Your task to perform on an android device: Go to notification settings Image 0: 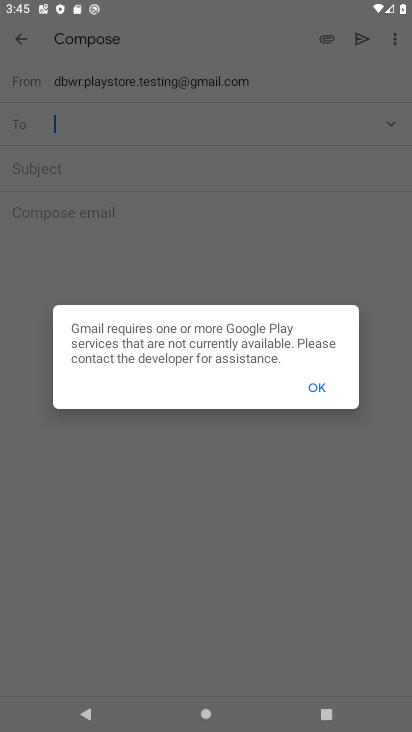
Step 0: press home button
Your task to perform on an android device: Go to notification settings Image 1: 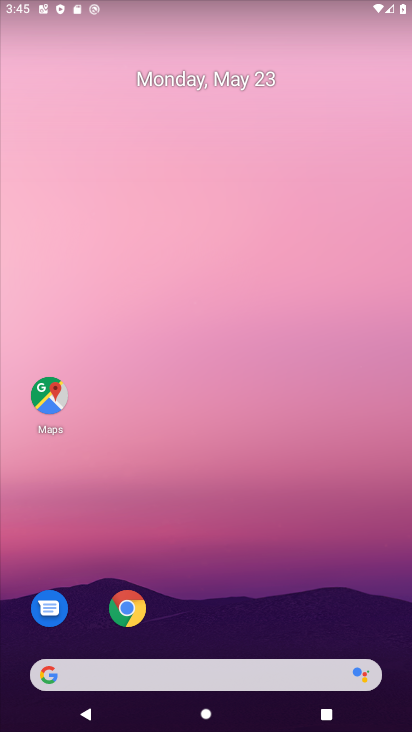
Step 1: drag from (270, 605) to (372, 104)
Your task to perform on an android device: Go to notification settings Image 2: 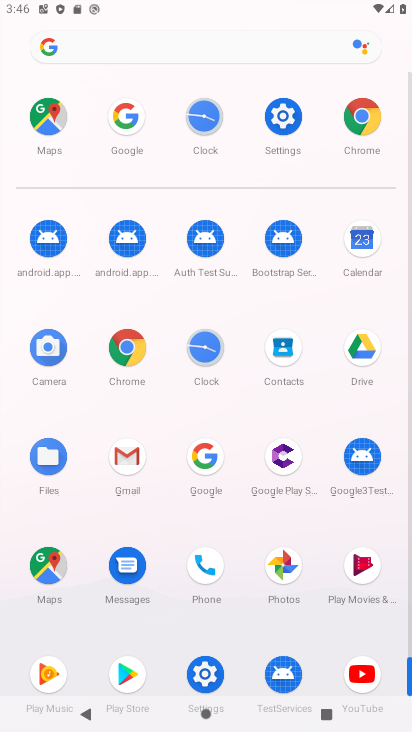
Step 2: click (284, 115)
Your task to perform on an android device: Go to notification settings Image 3: 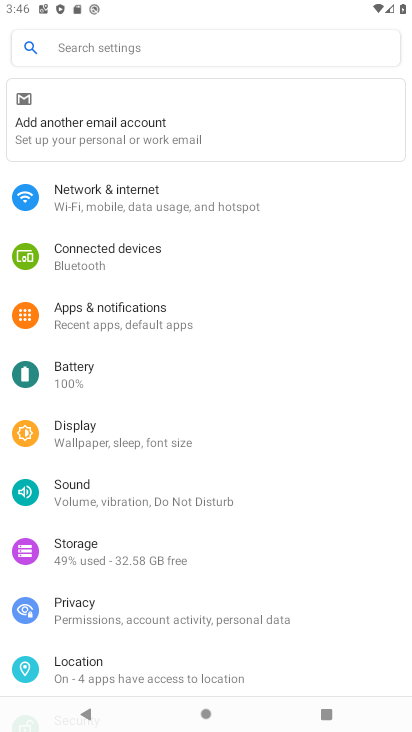
Step 3: click (114, 308)
Your task to perform on an android device: Go to notification settings Image 4: 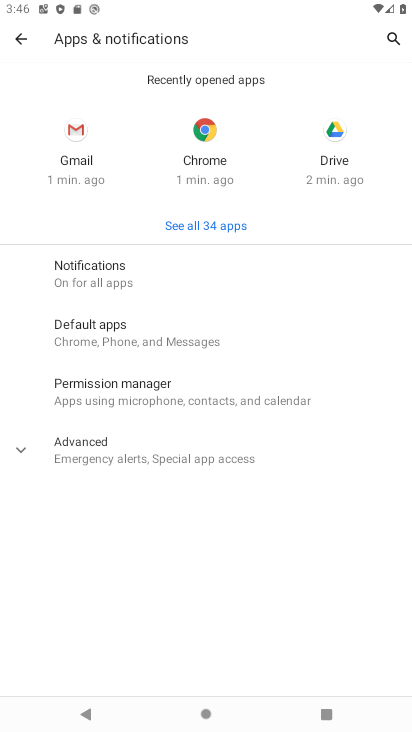
Step 4: click (102, 270)
Your task to perform on an android device: Go to notification settings Image 5: 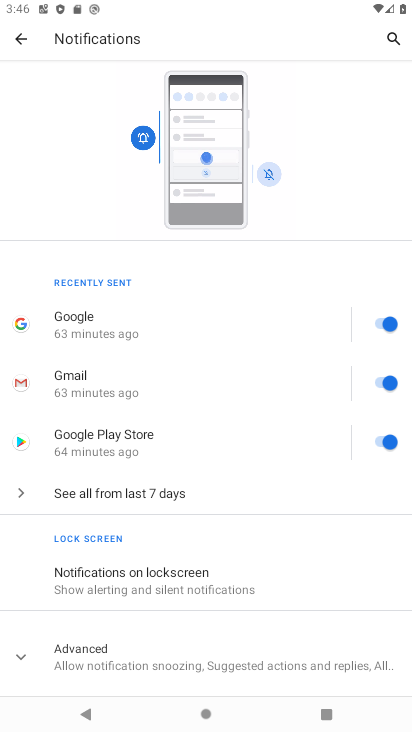
Step 5: task complete